Your task to perform on an android device: open app "Venmo" Image 0: 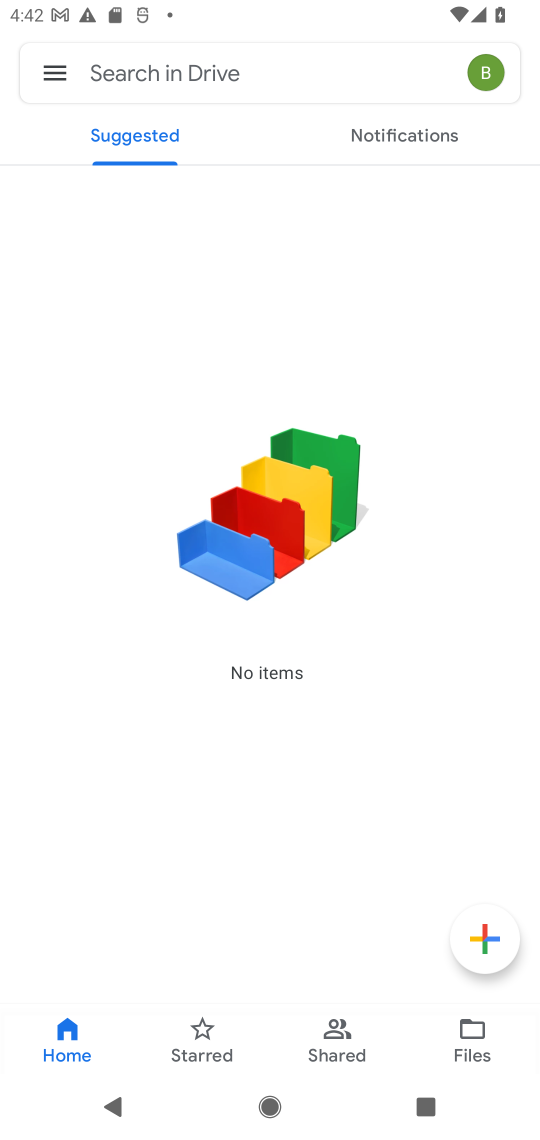
Step 0: press home button
Your task to perform on an android device: open app "Venmo" Image 1: 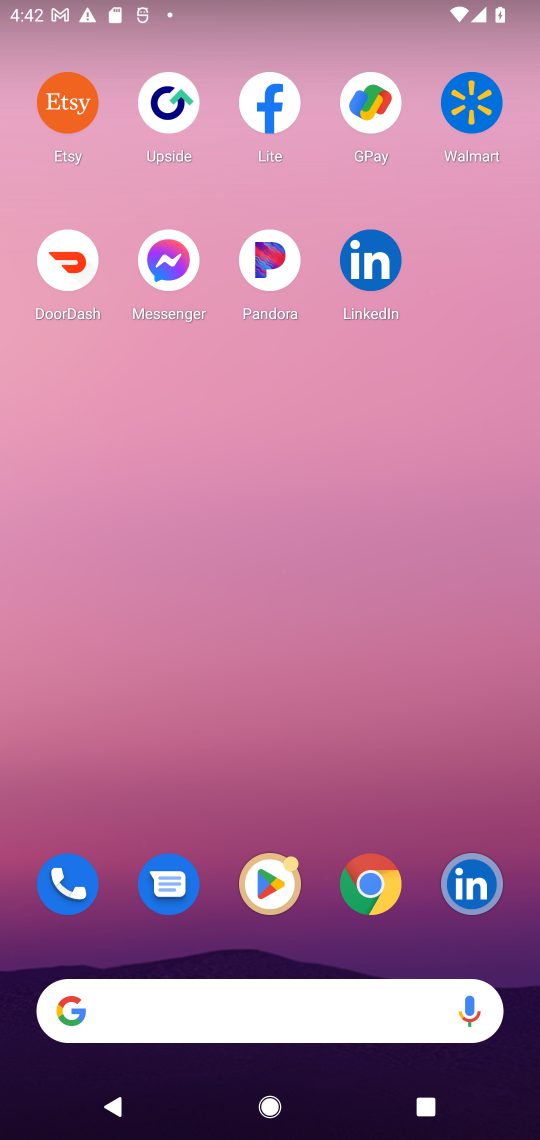
Step 1: click (261, 883)
Your task to perform on an android device: open app "Venmo" Image 2: 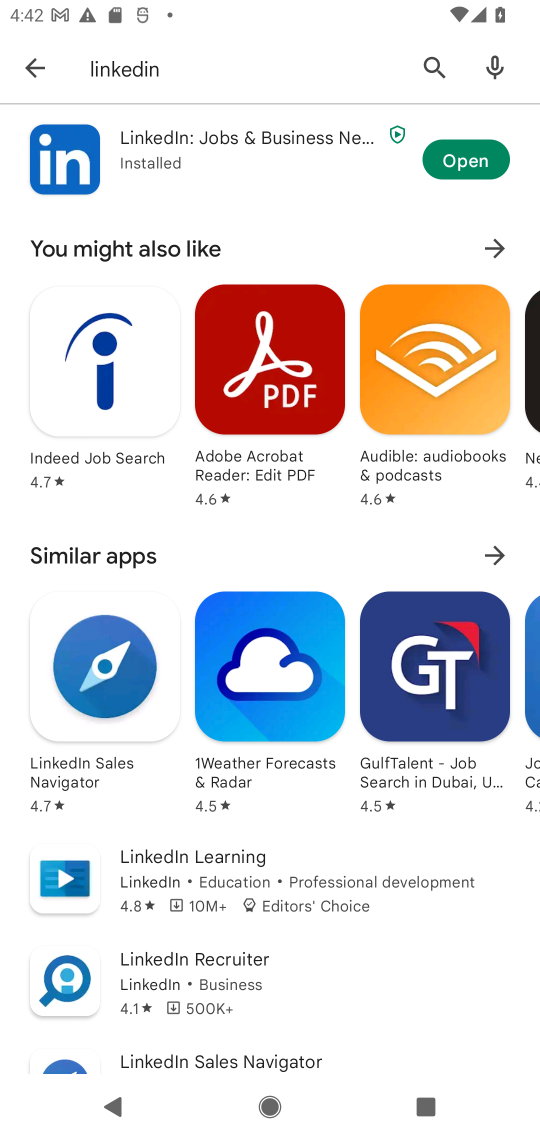
Step 2: click (25, 74)
Your task to perform on an android device: open app "Venmo" Image 3: 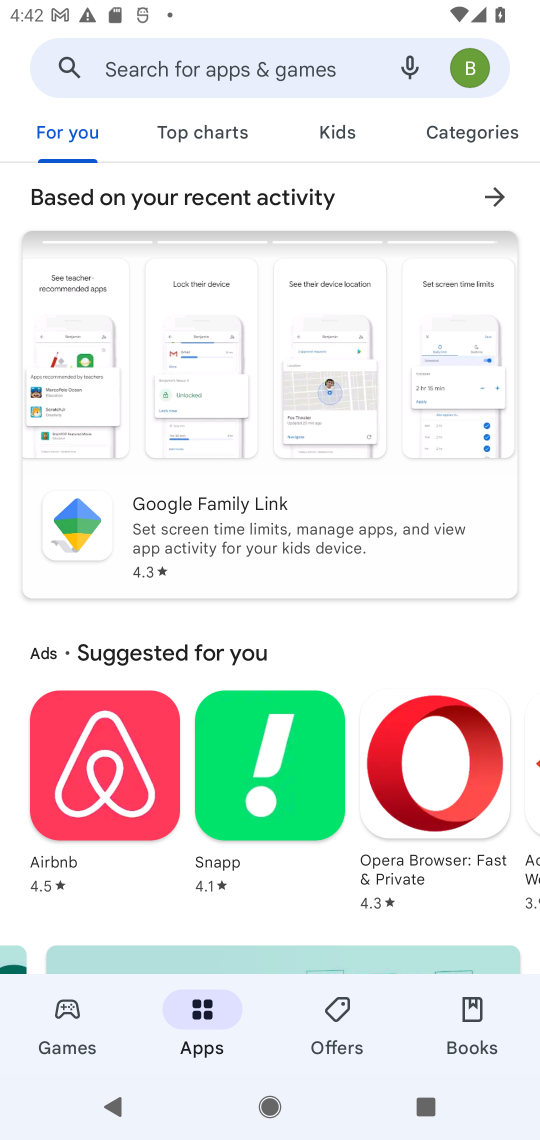
Step 3: click (248, 56)
Your task to perform on an android device: open app "Venmo" Image 4: 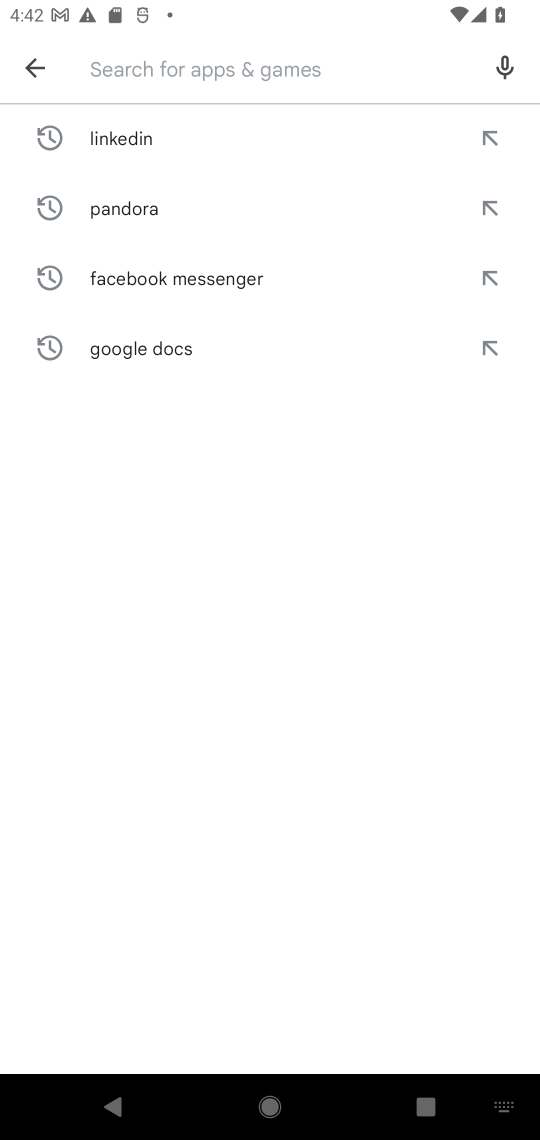
Step 4: type "Venmo"
Your task to perform on an android device: open app "Venmo" Image 5: 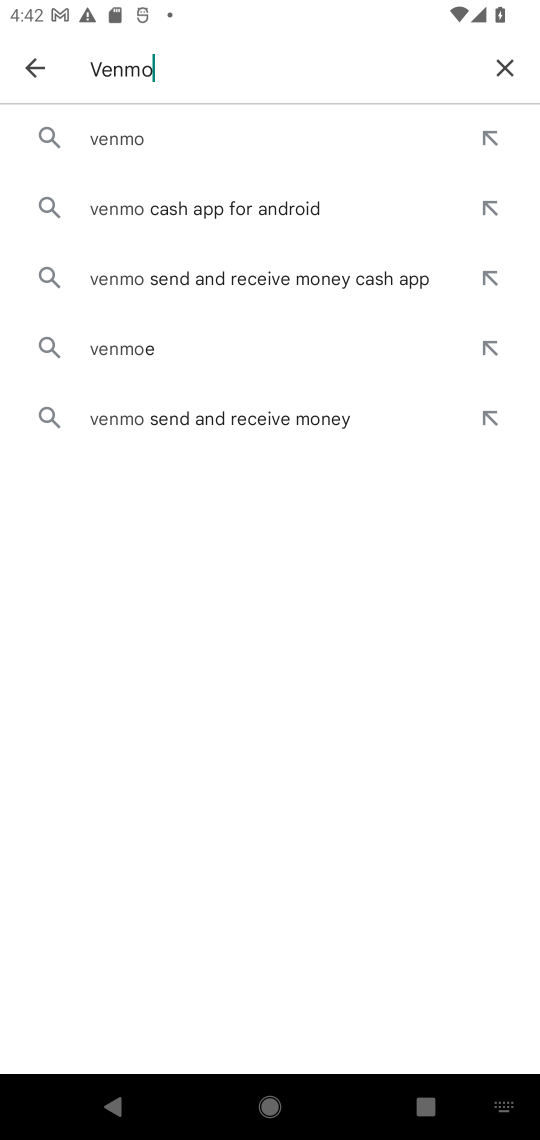
Step 5: click (124, 132)
Your task to perform on an android device: open app "Venmo" Image 6: 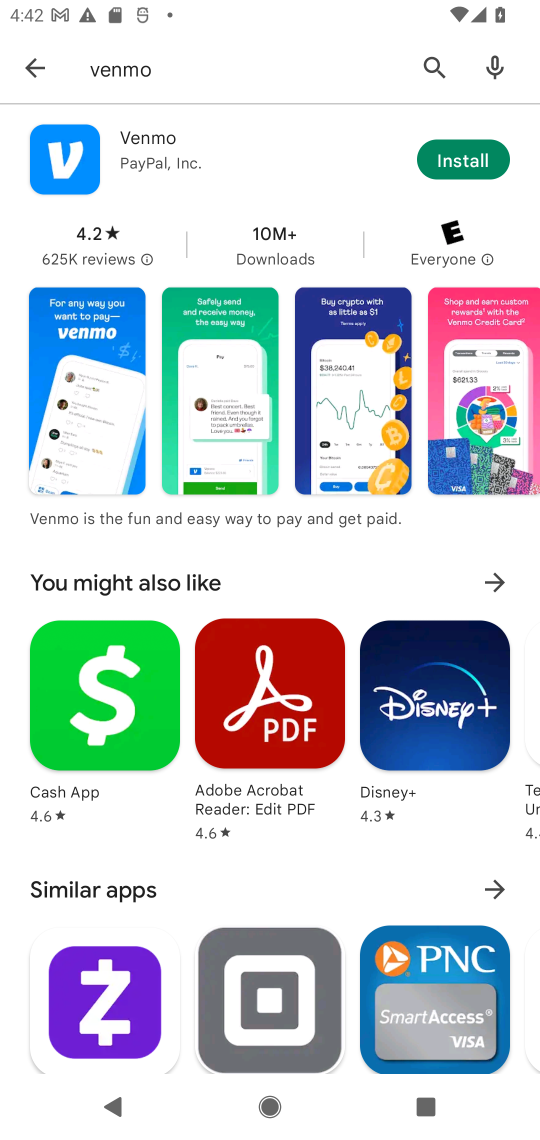
Step 6: click (459, 172)
Your task to perform on an android device: open app "Venmo" Image 7: 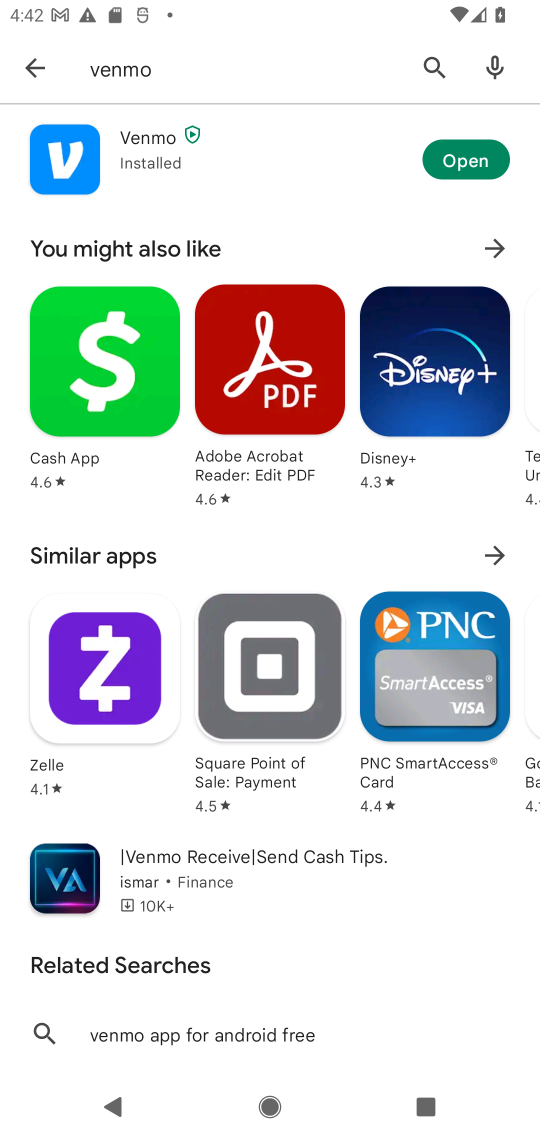
Step 7: click (455, 159)
Your task to perform on an android device: open app "Venmo" Image 8: 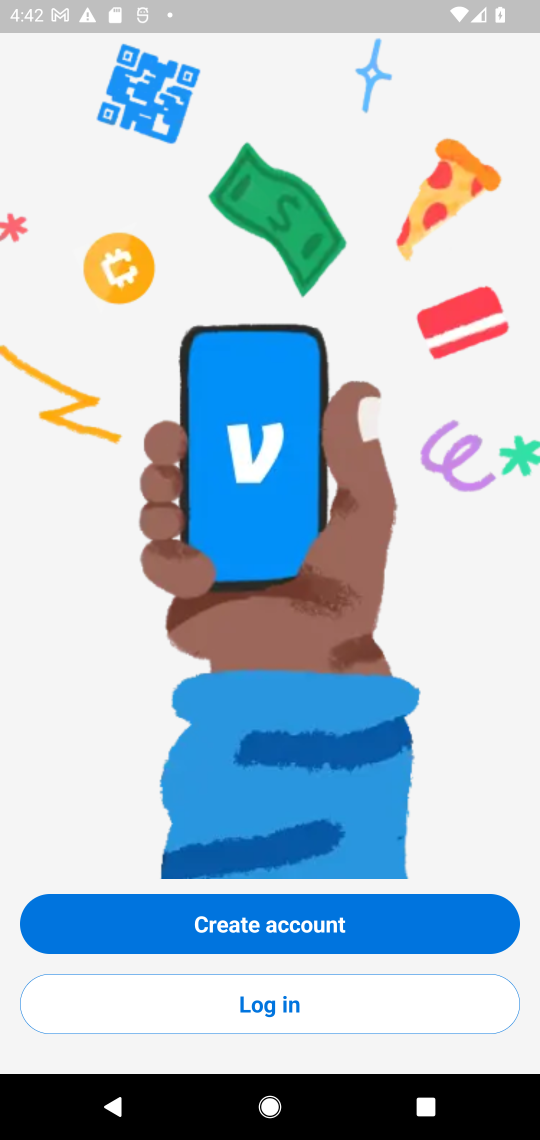
Step 8: task complete